Your task to perform on an android device: see sites visited before in the chrome app Image 0: 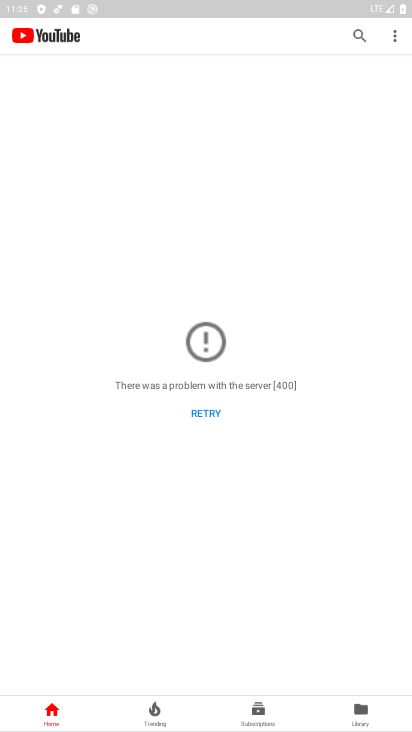
Step 0: press home button
Your task to perform on an android device: see sites visited before in the chrome app Image 1: 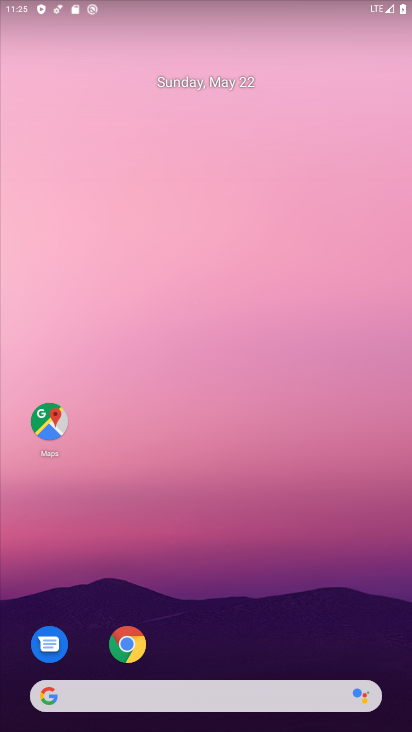
Step 1: click (128, 647)
Your task to perform on an android device: see sites visited before in the chrome app Image 2: 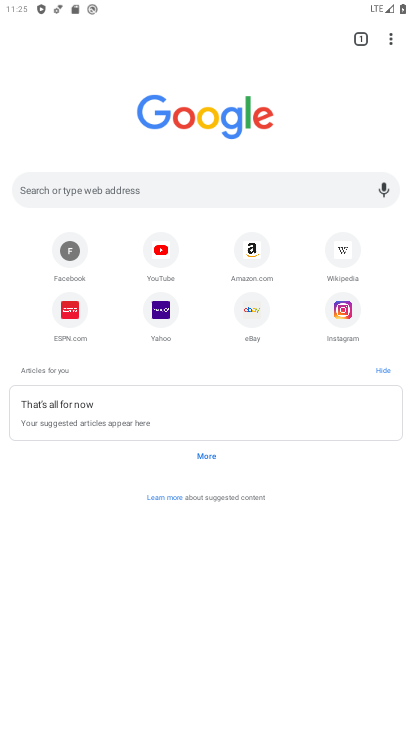
Step 2: click (395, 36)
Your task to perform on an android device: see sites visited before in the chrome app Image 3: 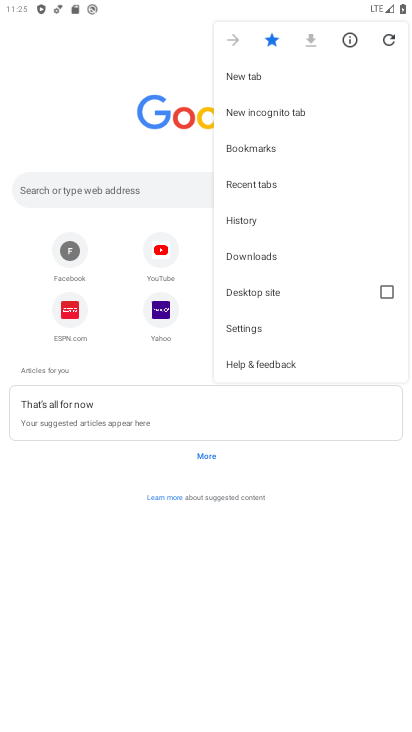
Step 3: click (244, 216)
Your task to perform on an android device: see sites visited before in the chrome app Image 4: 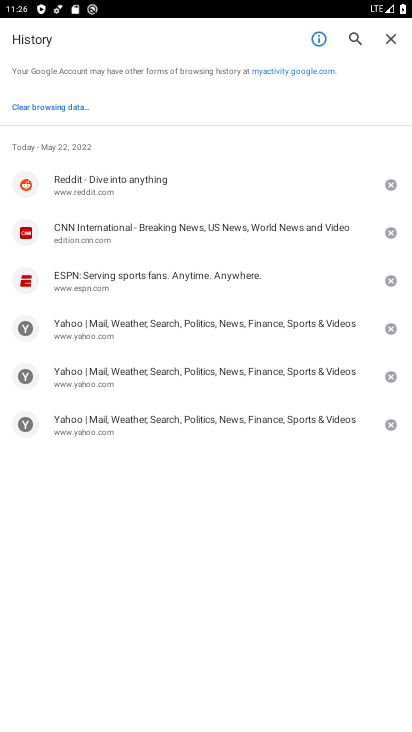
Step 4: task complete